Your task to perform on an android device: Open Google Chrome Image 0: 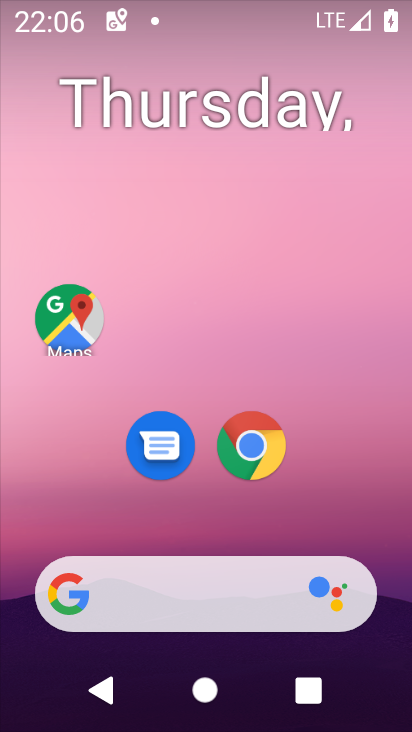
Step 0: drag from (166, 505) to (193, 208)
Your task to perform on an android device: Open Google Chrome Image 1: 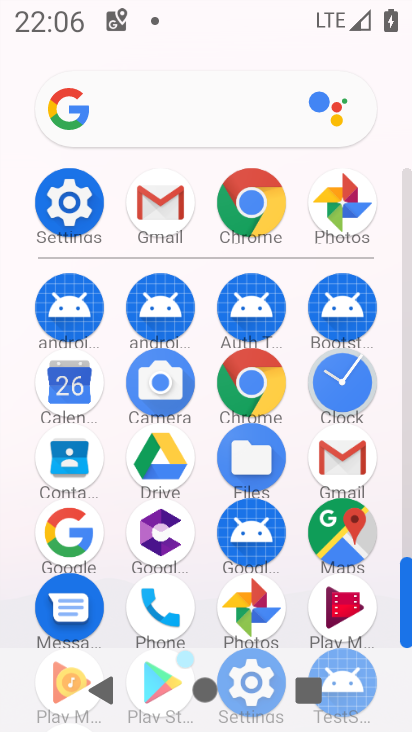
Step 1: click (235, 402)
Your task to perform on an android device: Open Google Chrome Image 2: 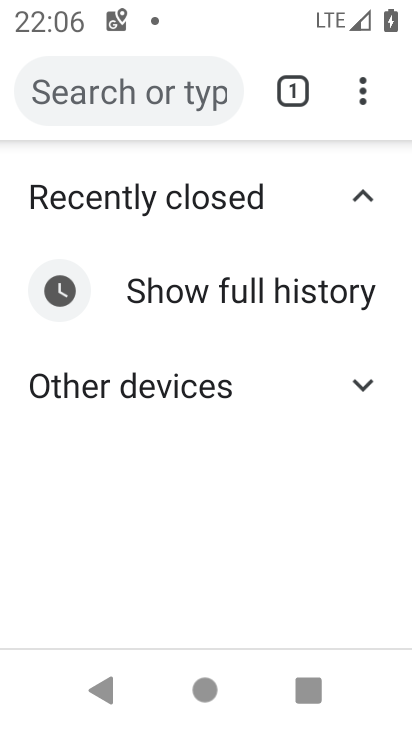
Step 2: task complete